Your task to perform on an android device: Go to privacy settings Image 0: 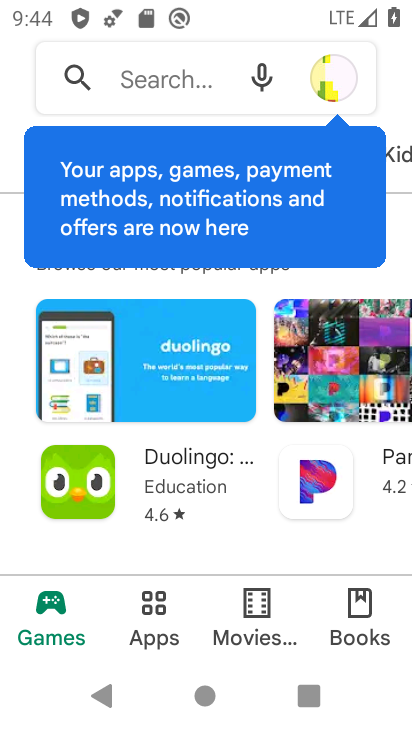
Step 0: press home button
Your task to perform on an android device: Go to privacy settings Image 1: 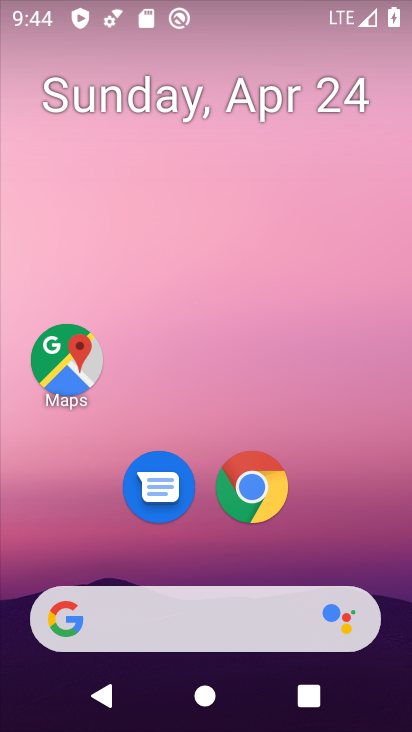
Step 1: drag from (310, 414) to (318, 82)
Your task to perform on an android device: Go to privacy settings Image 2: 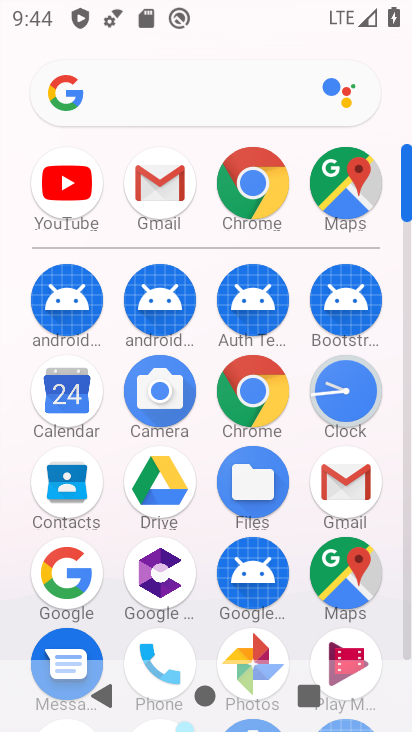
Step 2: click (246, 392)
Your task to perform on an android device: Go to privacy settings Image 3: 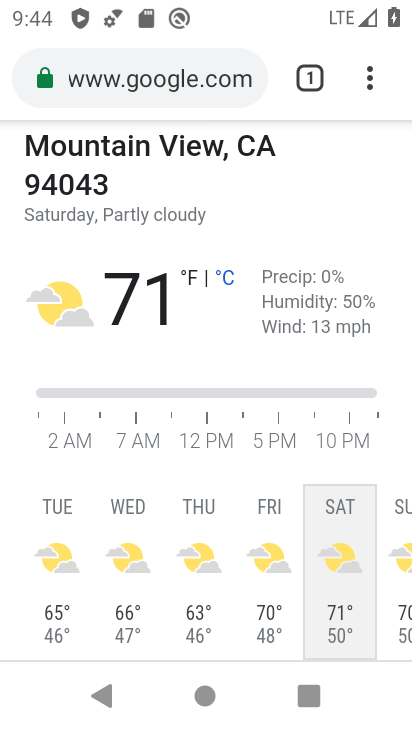
Step 3: drag from (365, 79) to (91, 553)
Your task to perform on an android device: Go to privacy settings Image 4: 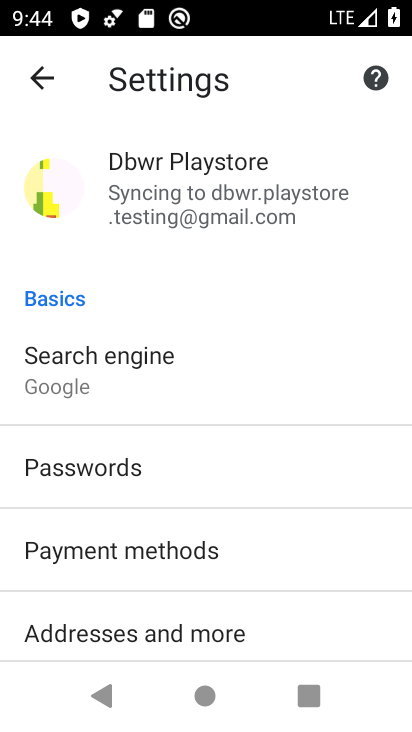
Step 4: drag from (286, 561) to (288, 293)
Your task to perform on an android device: Go to privacy settings Image 5: 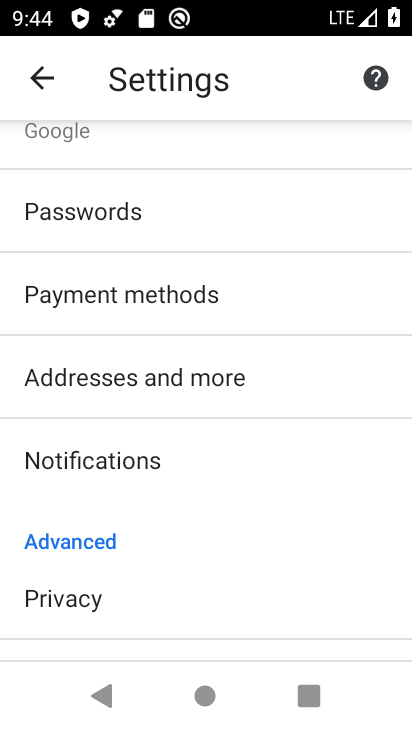
Step 5: click (80, 599)
Your task to perform on an android device: Go to privacy settings Image 6: 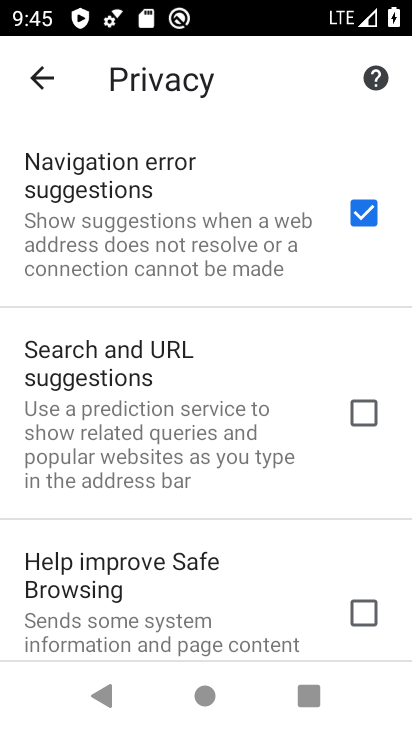
Step 6: task complete